Your task to perform on an android device: toggle translation in the chrome app Image 0: 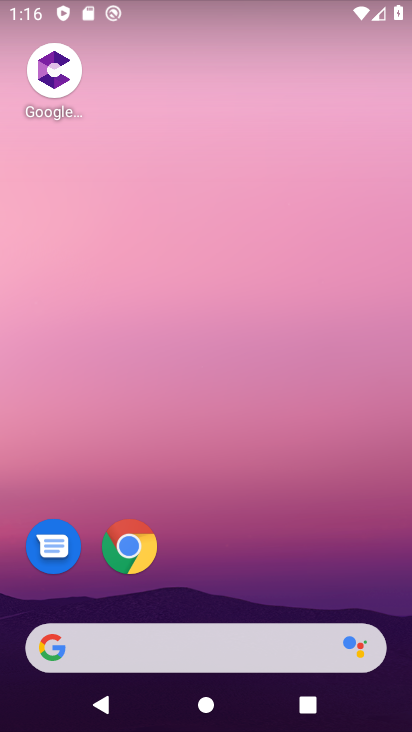
Step 0: drag from (302, 704) to (312, 6)
Your task to perform on an android device: toggle translation in the chrome app Image 1: 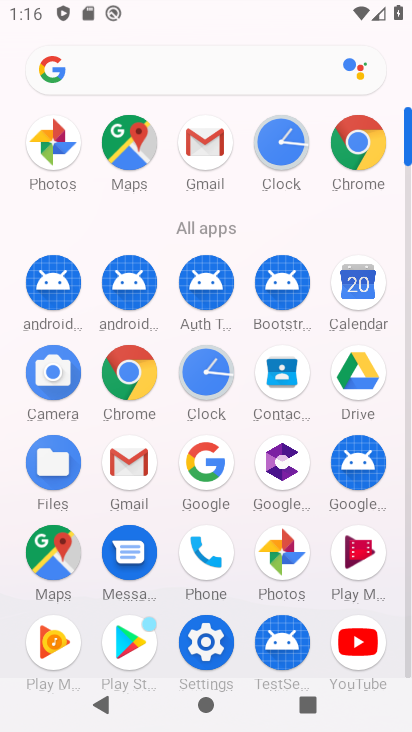
Step 1: click (119, 373)
Your task to perform on an android device: toggle translation in the chrome app Image 2: 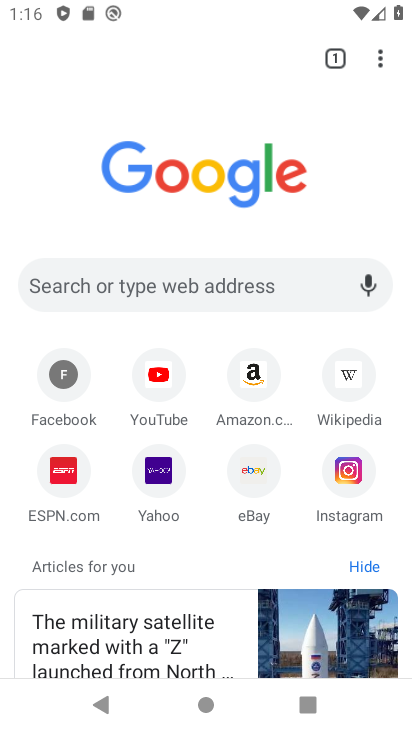
Step 2: drag from (385, 56) to (183, 506)
Your task to perform on an android device: toggle translation in the chrome app Image 3: 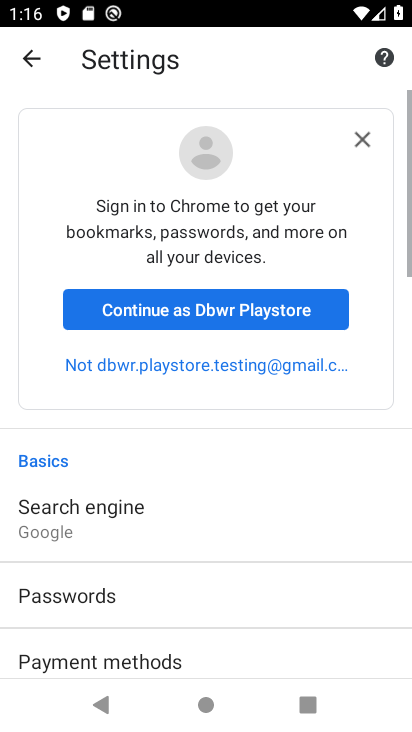
Step 3: drag from (199, 591) to (223, 5)
Your task to perform on an android device: toggle translation in the chrome app Image 4: 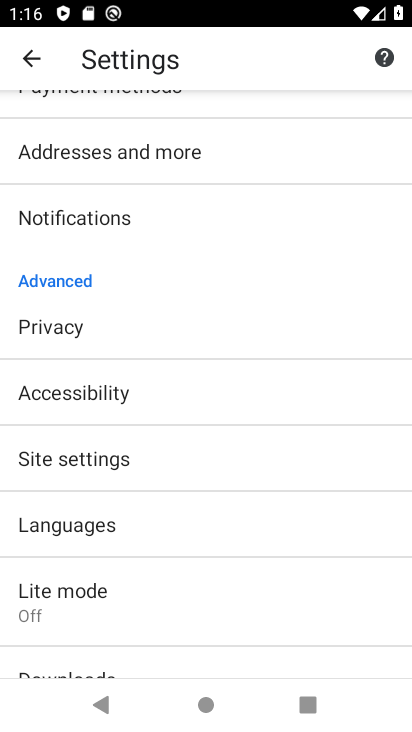
Step 4: click (132, 527)
Your task to perform on an android device: toggle translation in the chrome app Image 5: 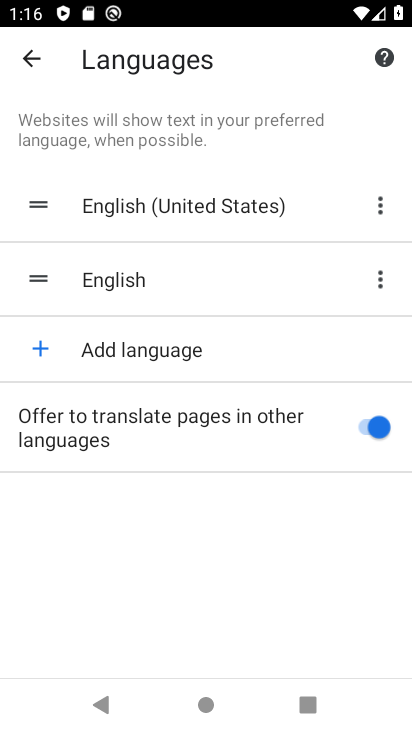
Step 5: click (368, 423)
Your task to perform on an android device: toggle translation in the chrome app Image 6: 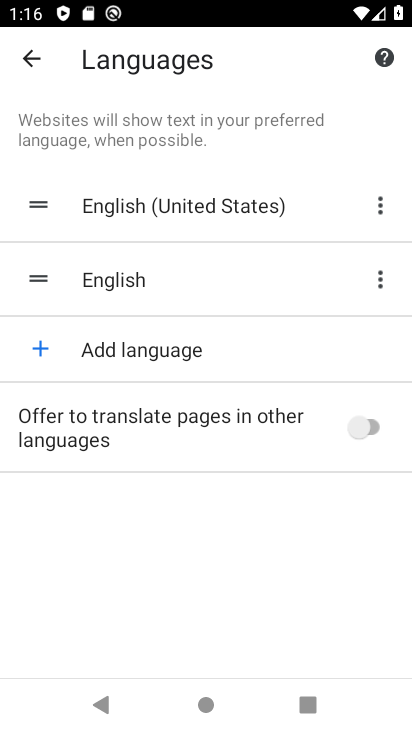
Step 6: task complete